Your task to perform on an android device: Open Google Maps and go to "Timeline" Image 0: 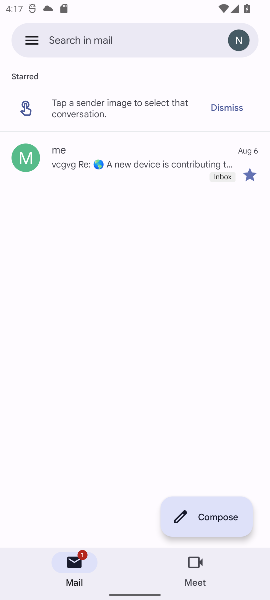
Step 0: task complete